Your task to perform on an android device: What's the weather today? Image 0: 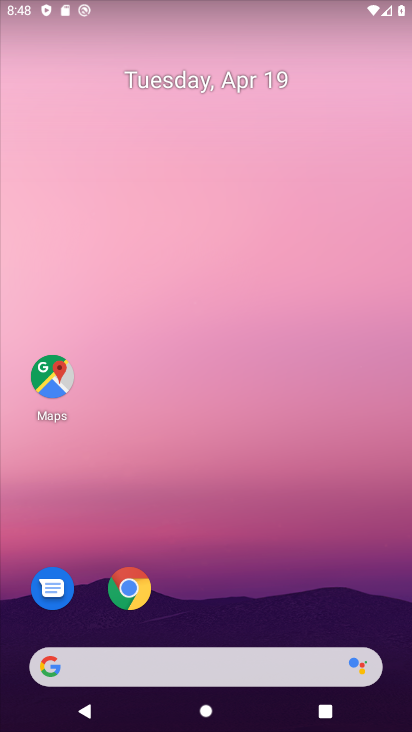
Step 0: drag from (213, 610) to (241, 72)
Your task to perform on an android device: What's the weather today? Image 1: 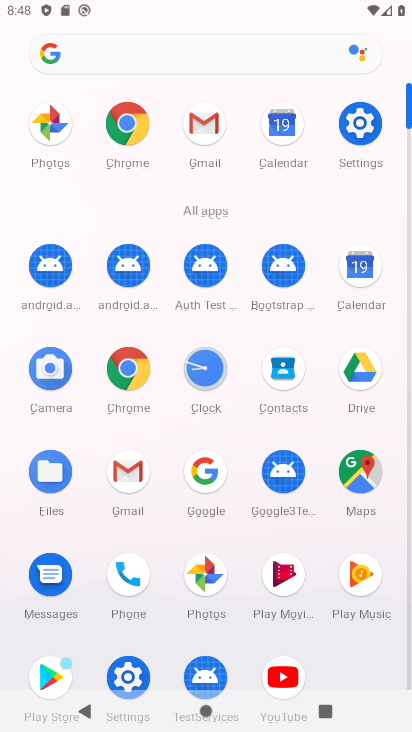
Step 1: press back button
Your task to perform on an android device: What's the weather today? Image 2: 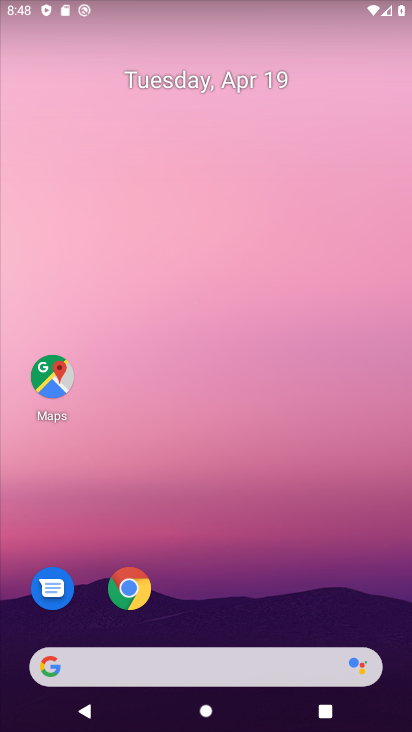
Step 2: drag from (392, 281) to (371, 252)
Your task to perform on an android device: What's the weather today? Image 3: 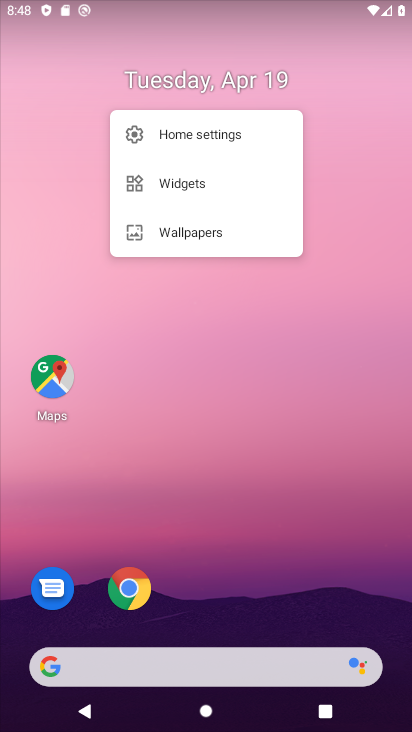
Step 3: click (259, 316)
Your task to perform on an android device: What's the weather today? Image 4: 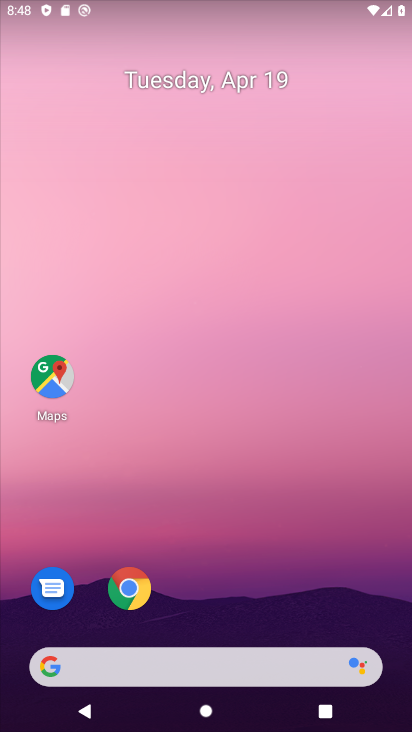
Step 4: drag from (22, 283) to (395, 319)
Your task to perform on an android device: What's the weather today? Image 5: 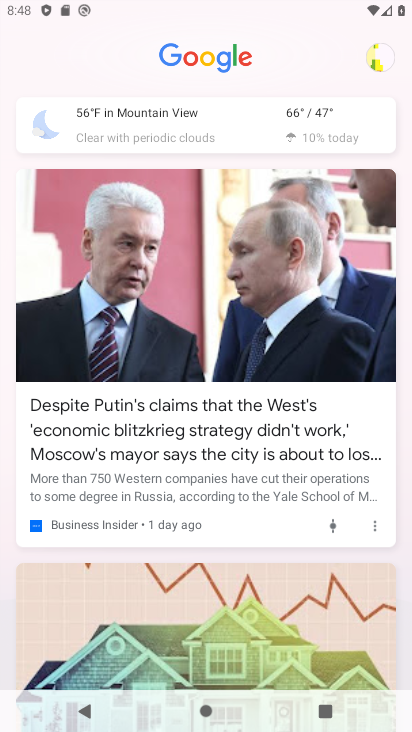
Step 5: click (292, 124)
Your task to perform on an android device: What's the weather today? Image 6: 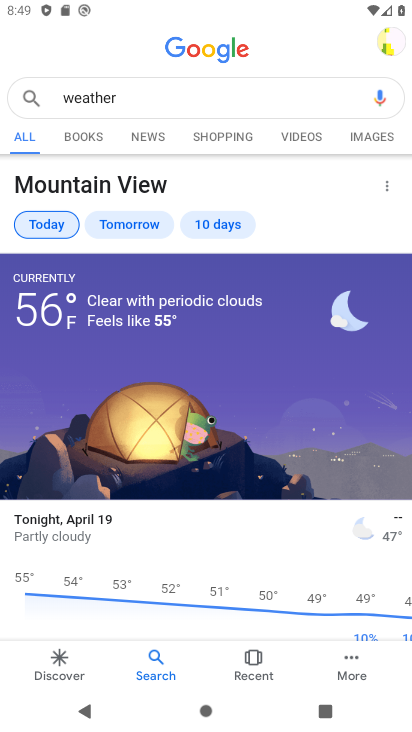
Step 6: task complete